Your task to perform on an android device: create a new album in the google photos Image 0: 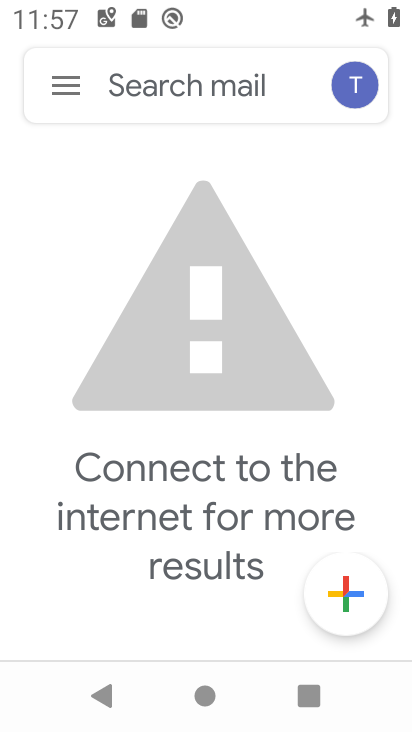
Step 0: press home button
Your task to perform on an android device: create a new album in the google photos Image 1: 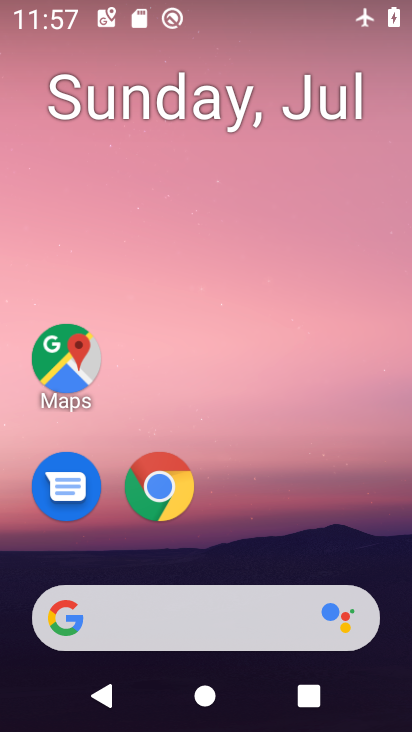
Step 1: drag from (336, 565) to (367, 55)
Your task to perform on an android device: create a new album in the google photos Image 2: 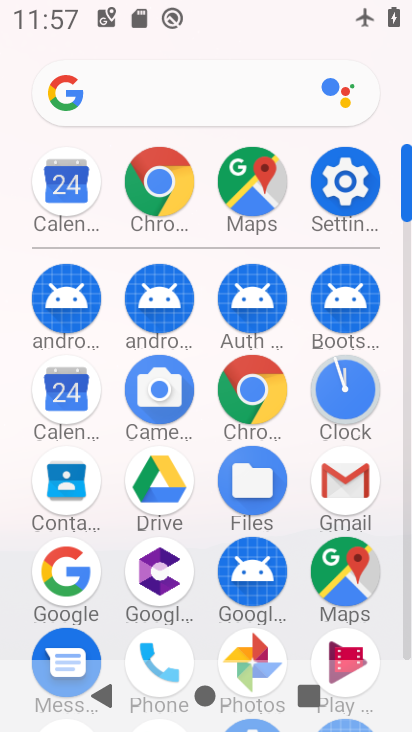
Step 2: drag from (392, 521) to (387, 240)
Your task to perform on an android device: create a new album in the google photos Image 3: 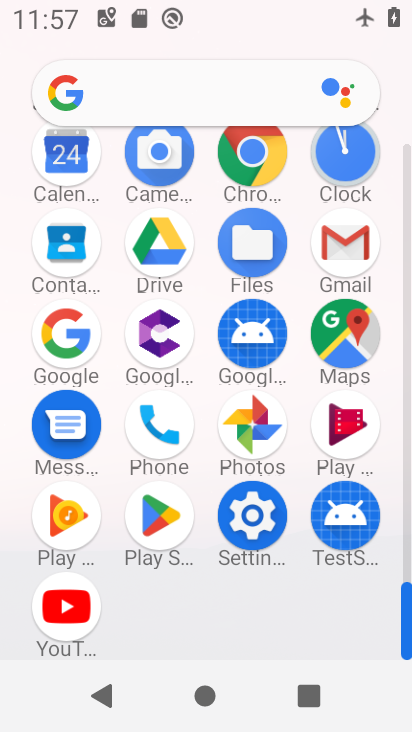
Step 3: click (257, 429)
Your task to perform on an android device: create a new album in the google photos Image 4: 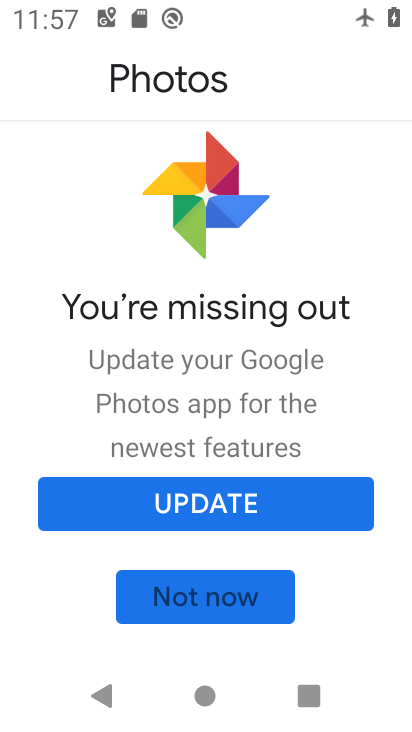
Step 4: click (222, 501)
Your task to perform on an android device: create a new album in the google photos Image 5: 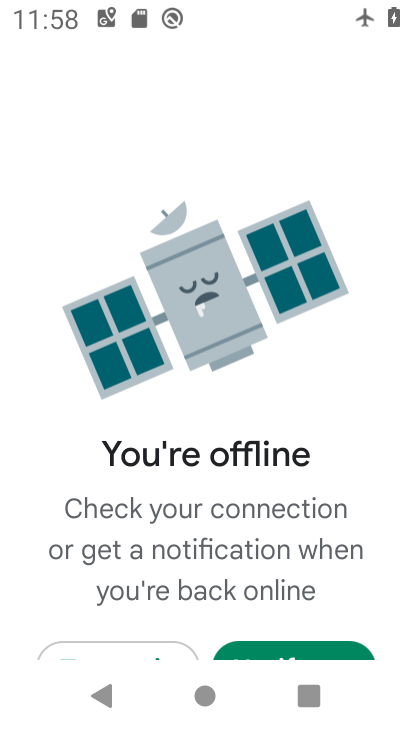
Step 5: task complete